Your task to perform on an android device: Open the Play Movies app and select the watchlist tab. Image 0: 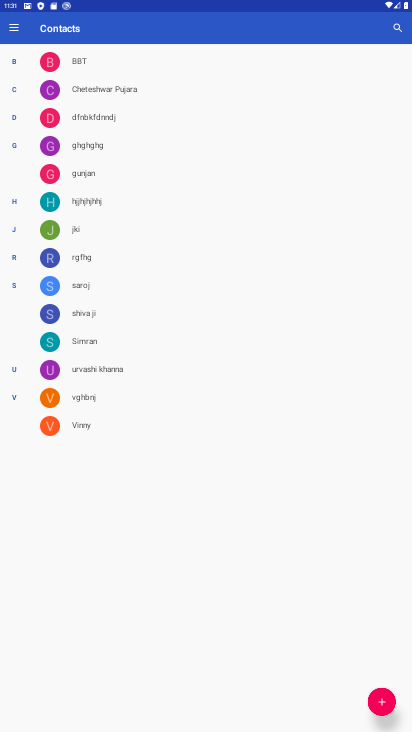
Step 0: press home button
Your task to perform on an android device: Open the Play Movies app and select the watchlist tab. Image 1: 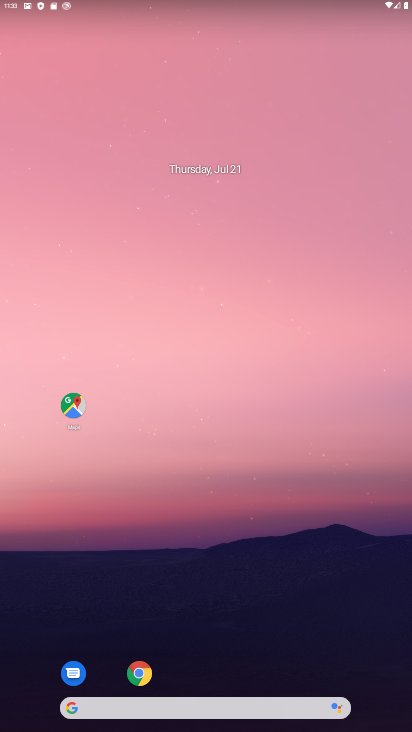
Step 1: drag from (239, 630) to (301, 311)
Your task to perform on an android device: Open the Play Movies app and select the watchlist tab. Image 2: 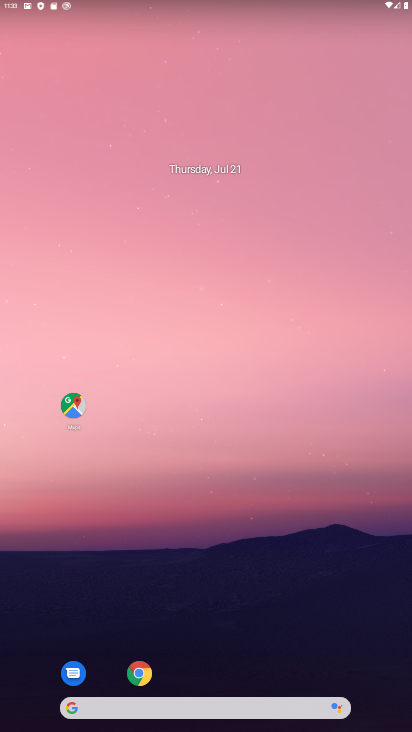
Step 2: drag from (281, 594) to (280, 154)
Your task to perform on an android device: Open the Play Movies app and select the watchlist tab. Image 3: 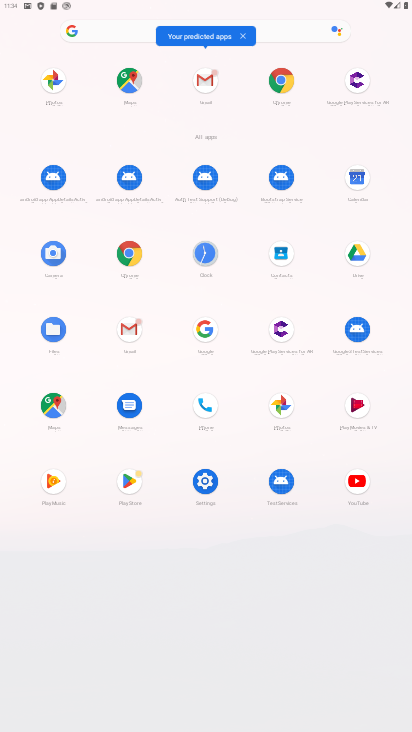
Step 3: click (351, 406)
Your task to perform on an android device: Open the Play Movies app and select the watchlist tab. Image 4: 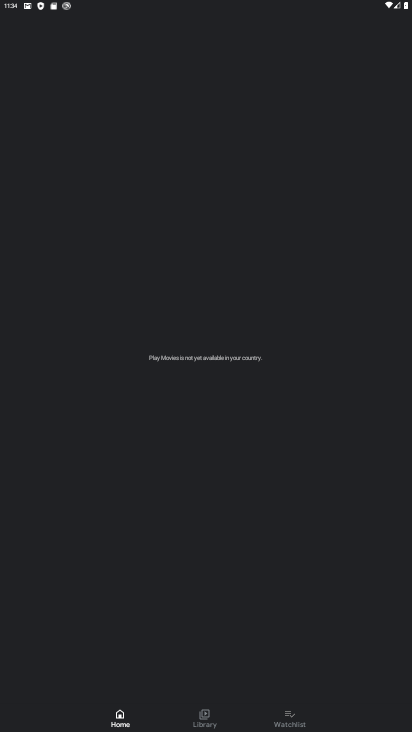
Step 4: click (284, 724)
Your task to perform on an android device: Open the Play Movies app and select the watchlist tab. Image 5: 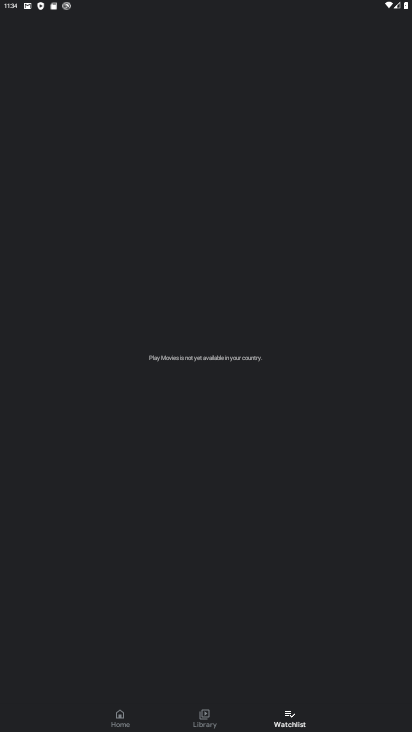
Step 5: task complete